Your task to perform on an android device: Search for sushi restaurants on Maps Image 0: 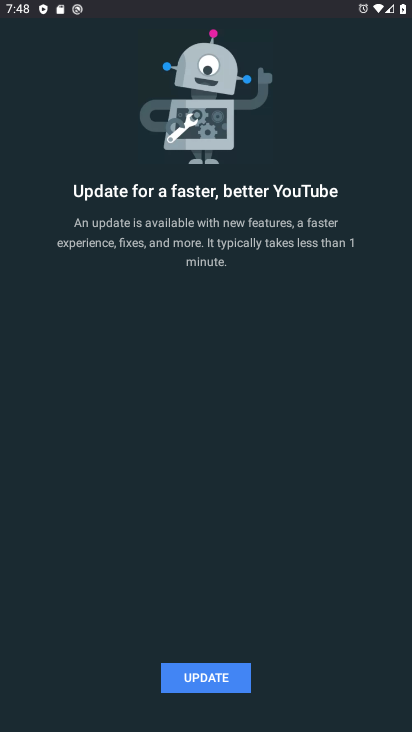
Step 0: press home button
Your task to perform on an android device: Search for sushi restaurants on Maps Image 1: 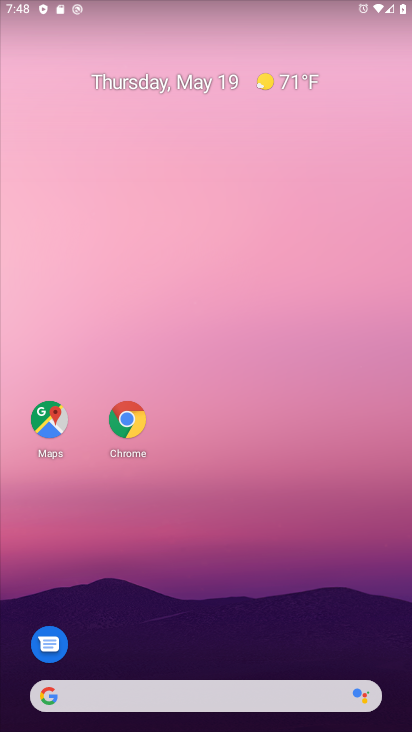
Step 1: click (39, 393)
Your task to perform on an android device: Search for sushi restaurants on Maps Image 2: 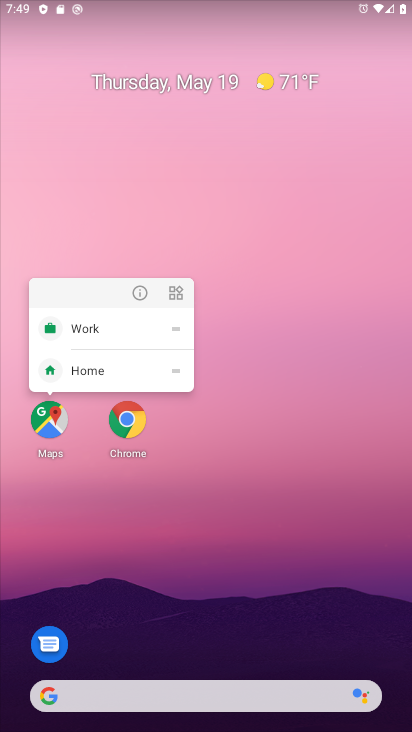
Step 2: click (41, 424)
Your task to perform on an android device: Search for sushi restaurants on Maps Image 3: 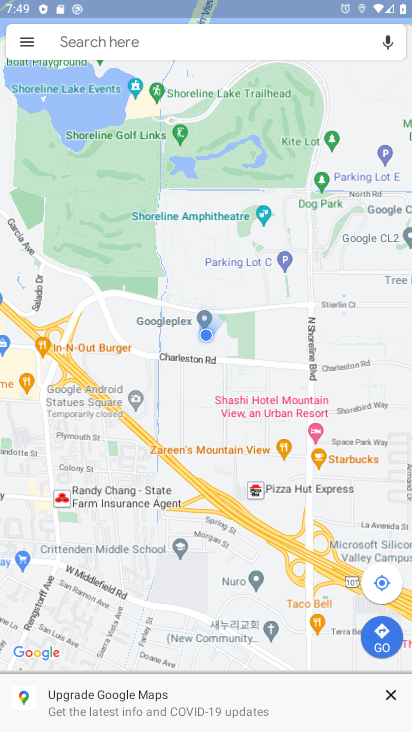
Step 3: click (91, 41)
Your task to perform on an android device: Search for sushi restaurants on Maps Image 4: 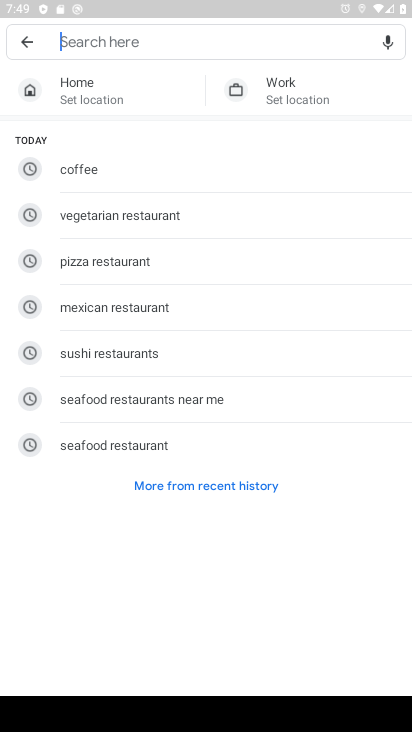
Step 4: click (66, 352)
Your task to perform on an android device: Search for sushi restaurants on Maps Image 5: 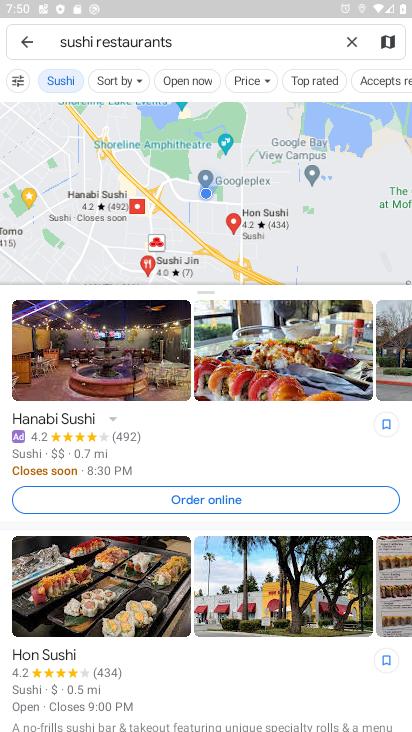
Step 5: task complete